Your task to perform on an android device: open app "eBay: The shopping marketplace" (install if not already installed) Image 0: 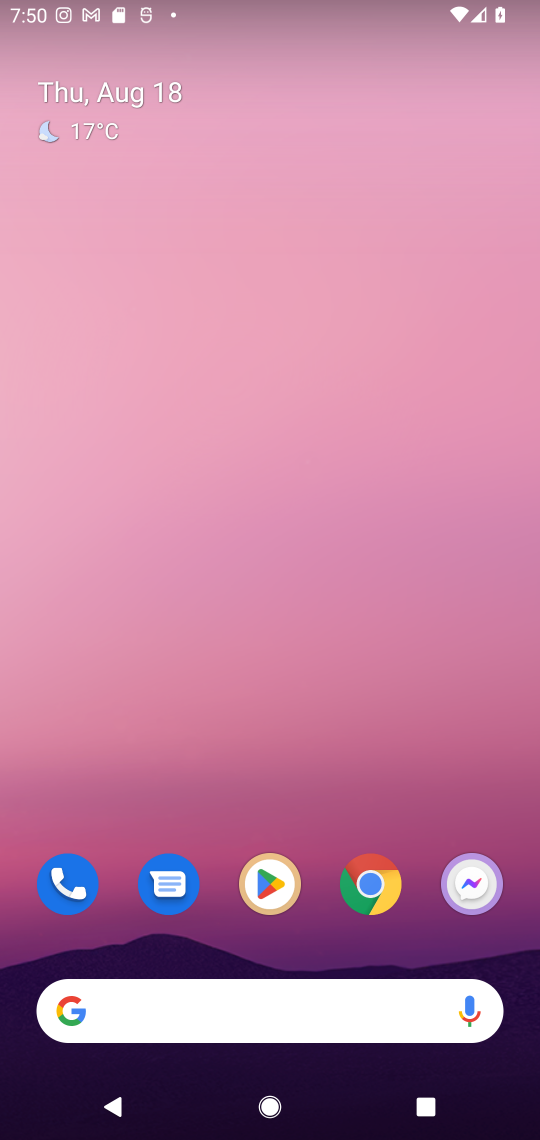
Step 0: drag from (162, 1025) to (314, 107)
Your task to perform on an android device: open app "eBay: The shopping marketplace" (install if not already installed) Image 1: 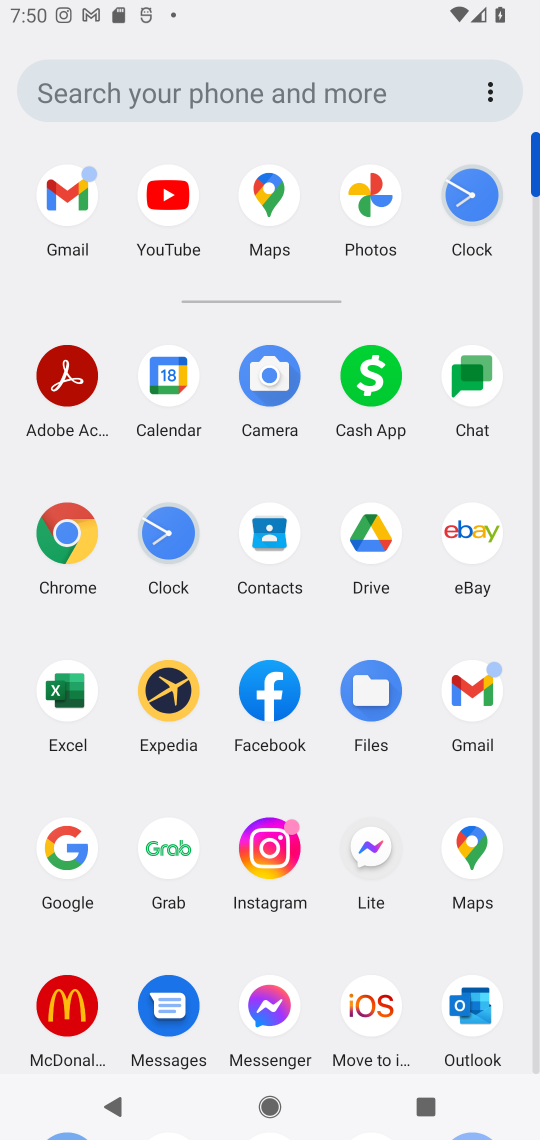
Step 1: drag from (327, 787) to (353, 129)
Your task to perform on an android device: open app "eBay: The shopping marketplace" (install if not already installed) Image 2: 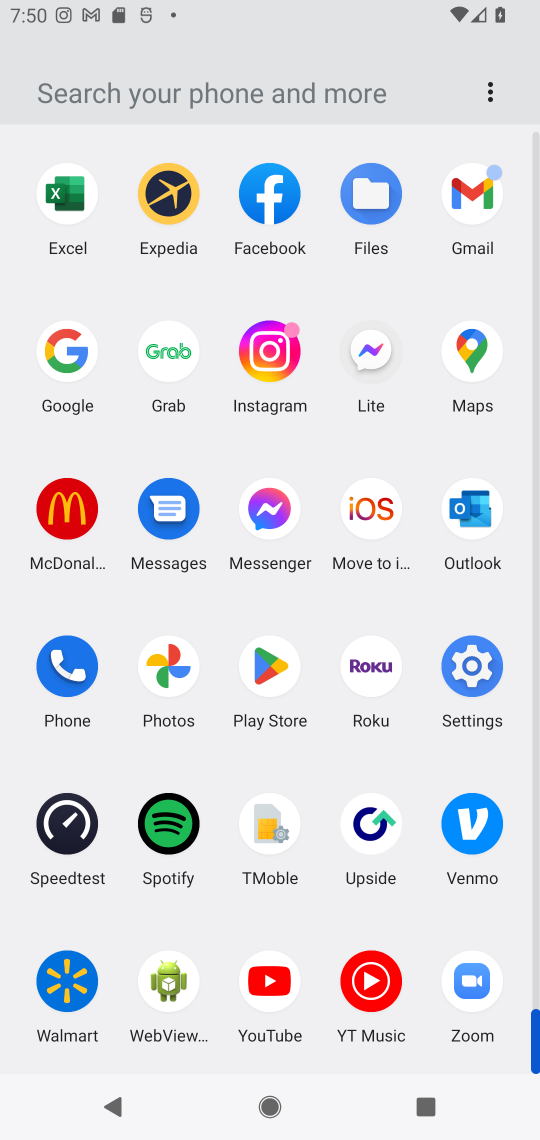
Step 2: click (280, 671)
Your task to perform on an android device: open app "eBay: The shopping marketplace" (install if not already installed) Image 3: 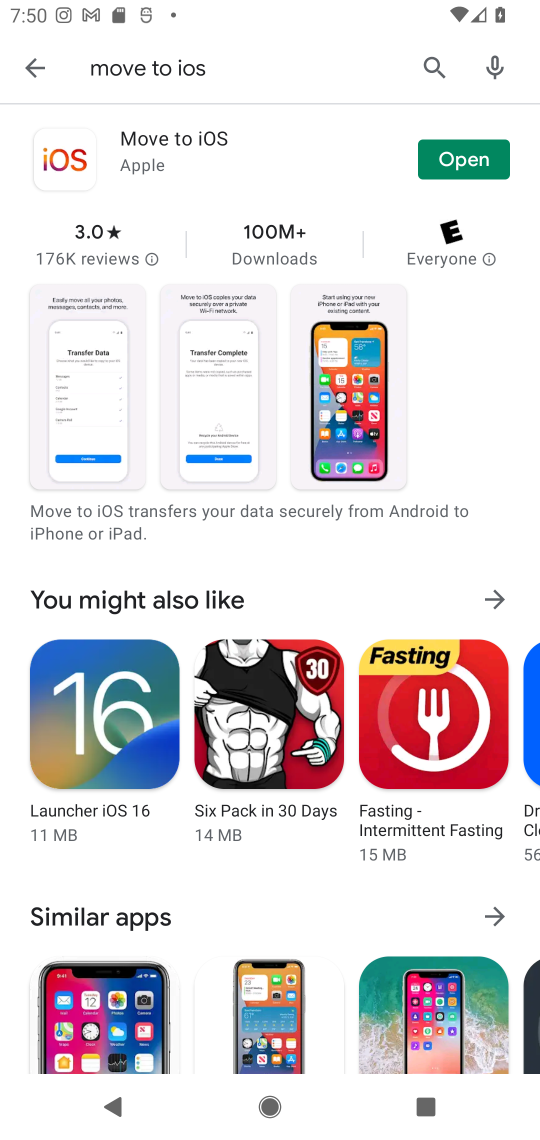
Step 3: press back button
Your task to perform on an android device: open app "eBay: The shopping marketplace" (install if not already installed) Image 4: 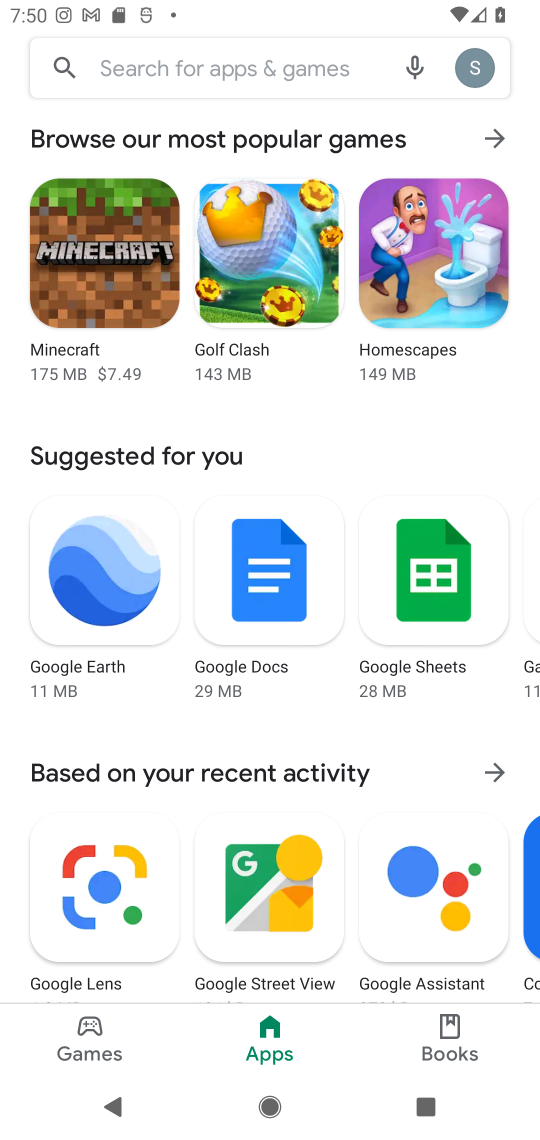
Step 4: click (274, 64)
Your task to perform on an android device: open app "eBay: The shopping marketplace" (install if not already installed) Image 5: 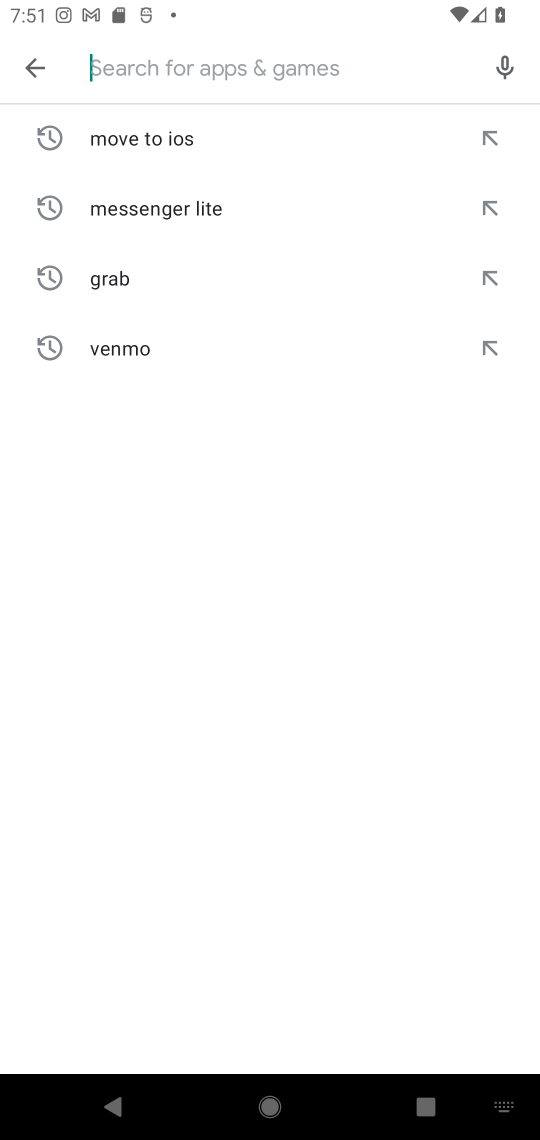
Step 5: type "eBay: The shopping marketplace"
Your task to perform on an android device: open app "eBay: The shopping marketplace" (install if not already installed) Image 6: 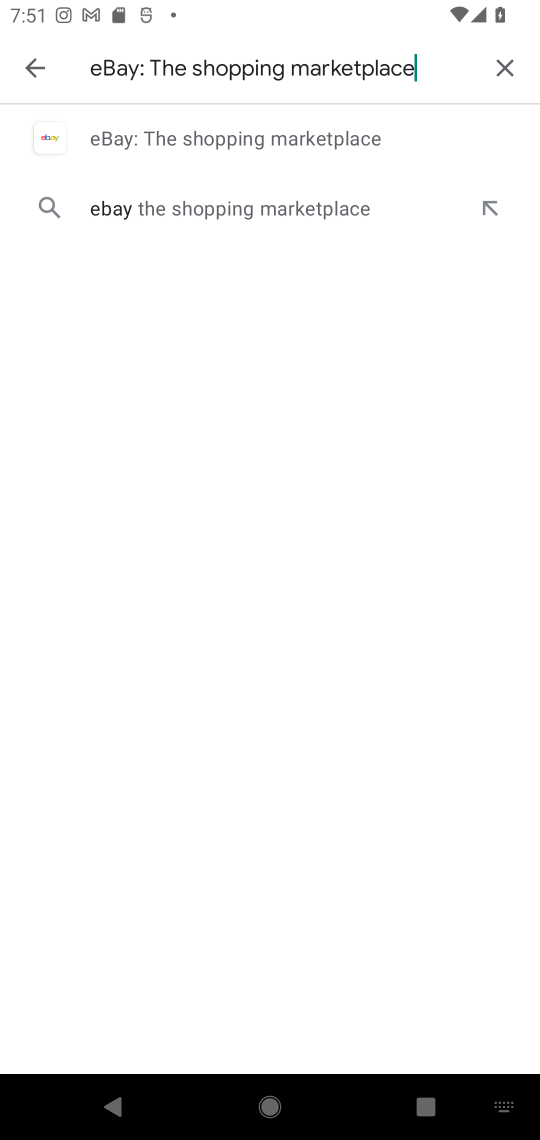
Step 6: click (257, 133)
Your task to perform on an android device: open app "eBay: The shopping marketplace" (install if not already installed) Image 7: 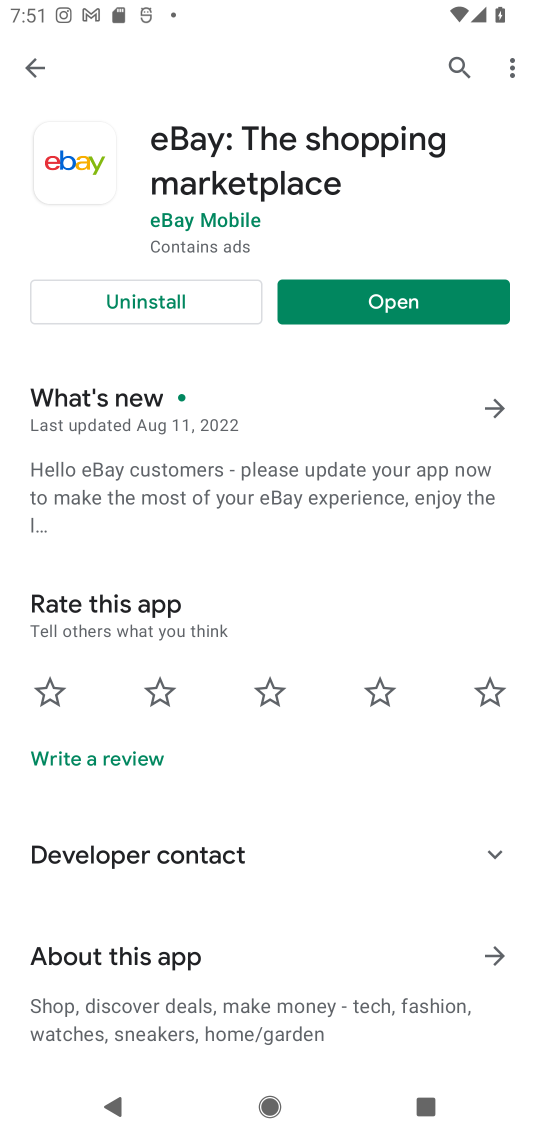
Step 7: click (324, 300)
Your task to perform on an android device: open app "eBay: The shopping marketplace" (install if not already installed) Image 8: 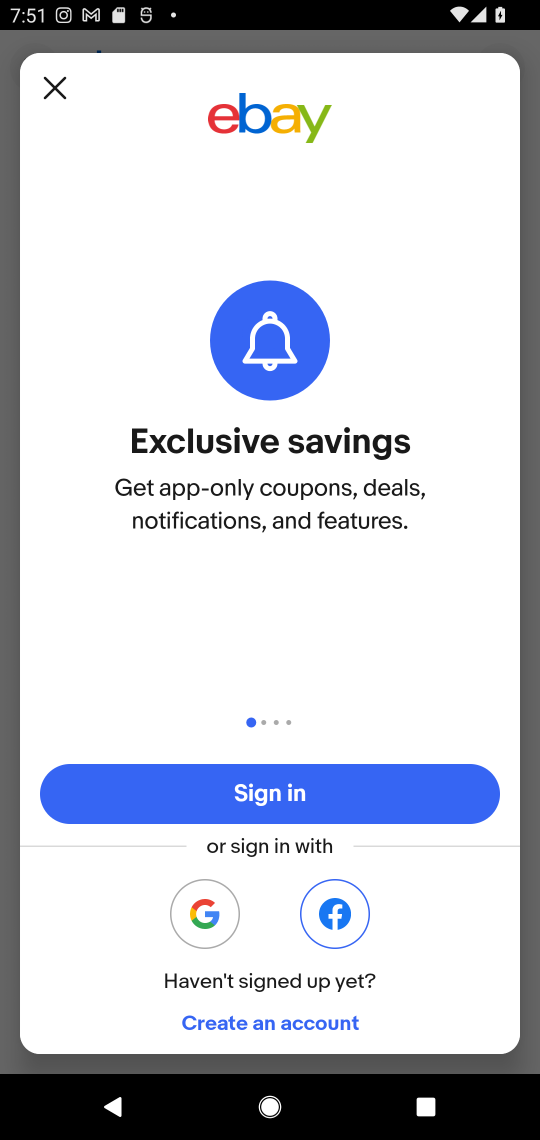
Step 8: task complete